Your task to perform on an android device: change alarm snooze length Image 0: 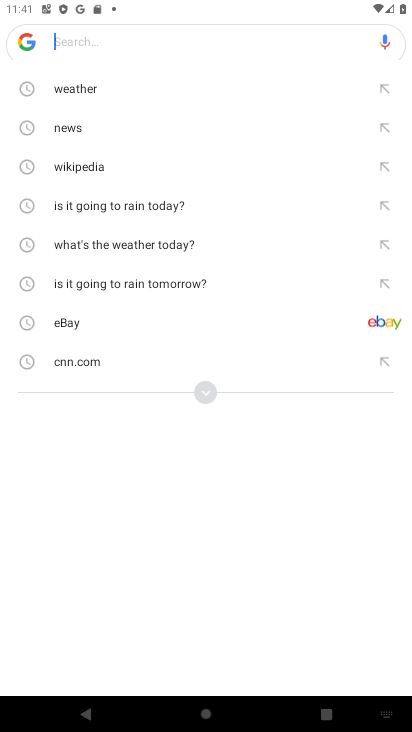
Step 0: press home button
Your task to perform on an android device: change alarm snooze length Image 1: 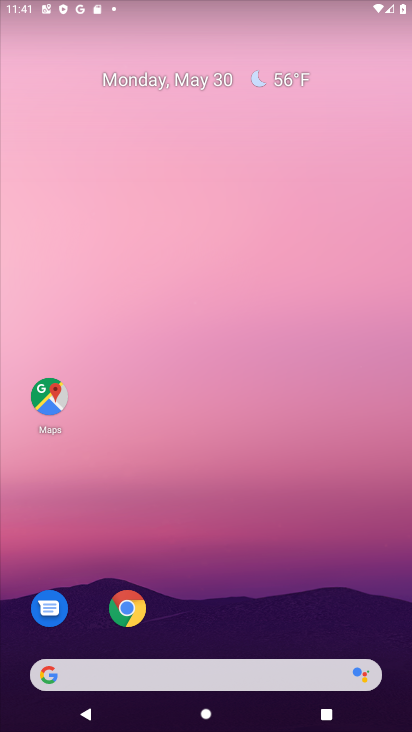
Step 1: drag from (200, 629) to (191, 44)
Your task to perform on an android device: change alarm snooze length Image 2: 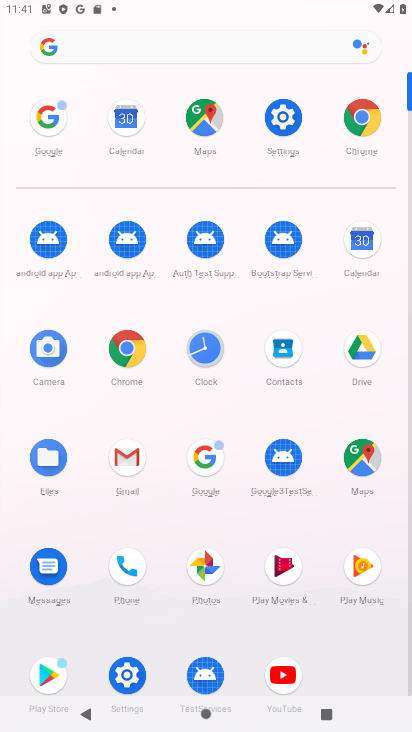
Step 2: click (204, 348)
Your task to perform on an android device: change alarm snooze length Image 3: 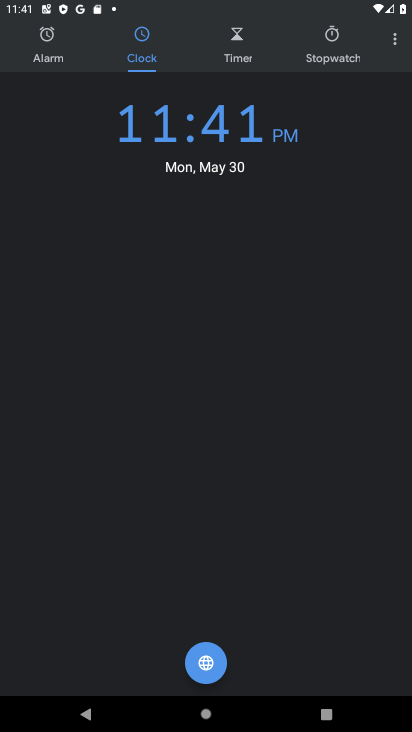
Step 3: click (388, 38)
Your task to perform on an android device: change alarm snooze length Image 4: 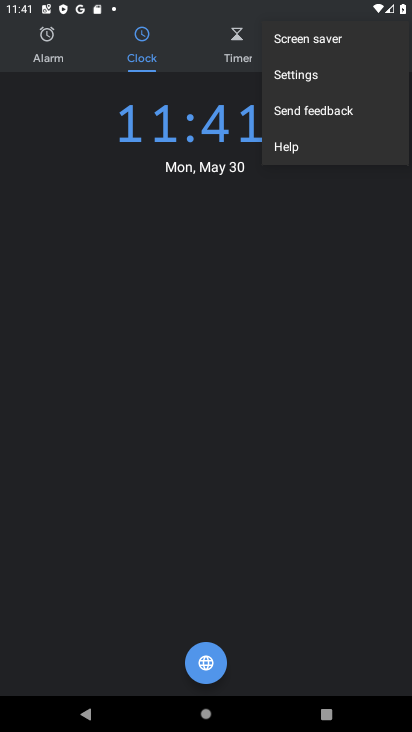
Step 4: click (289, 72)
Your task to perform on an android device: change alarm snooze length Image 5: 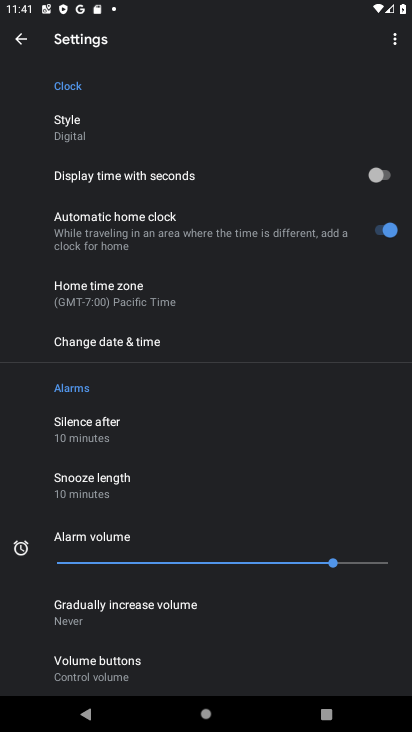
Step 5: click (106, 482)
Your task to perform on an android device: change alarm snooze length Image 6: 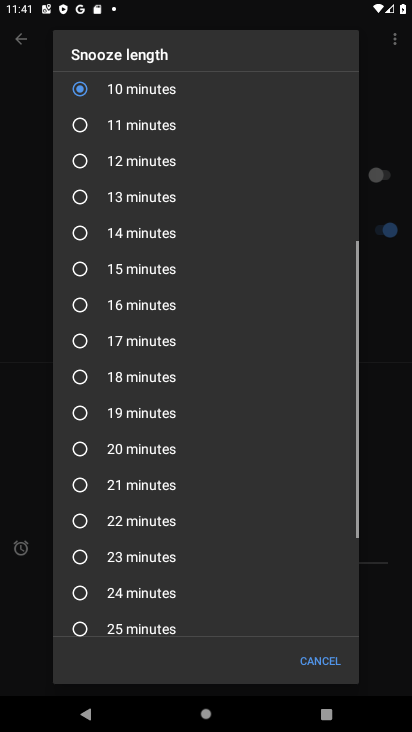
Step 6: click (77, 230)
Your task to perform on an android device: change alarm snooze length Image 7: 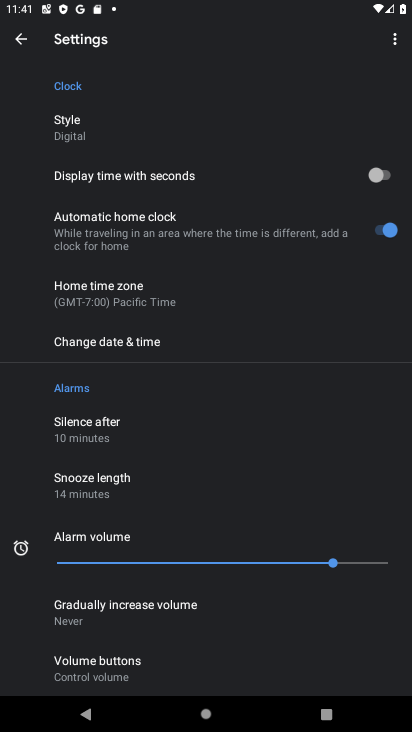
Step 7: task complete